Your task to perform on an android device: uninstall "The Home Depot" Image 0: 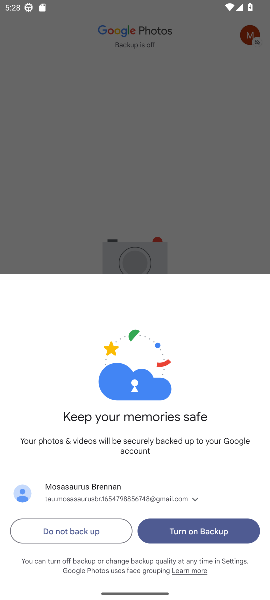
Step 0: press home button
Your task to perform on an android device: uninstall "The Home Depot" Image 1: 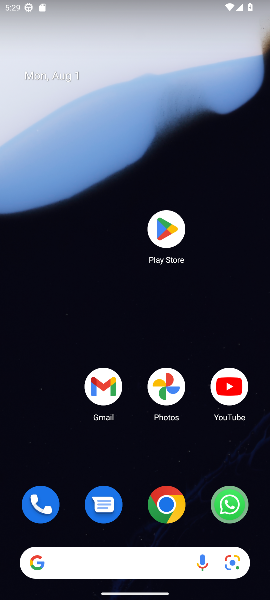
Step 1: click (166, 230)
Your task to perform on an android device: uninstall "The Home Depot" Image 2: 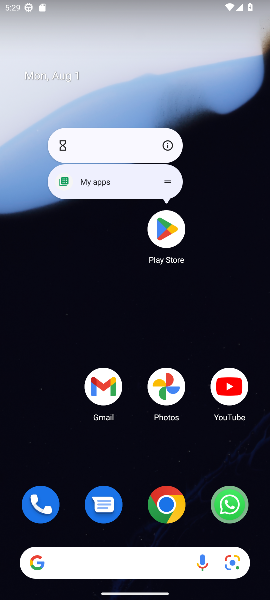
Step 2: click (166, 230)
Your task to perform on an android device: uninstall "The Home Depot" Image 3: 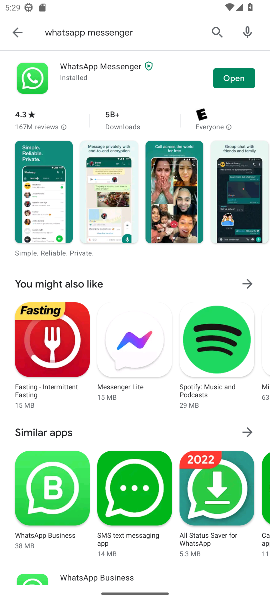
Step 3: click (212, 24)
Your task to perform on an android device: uninstall "The Home Depot" Image 4: 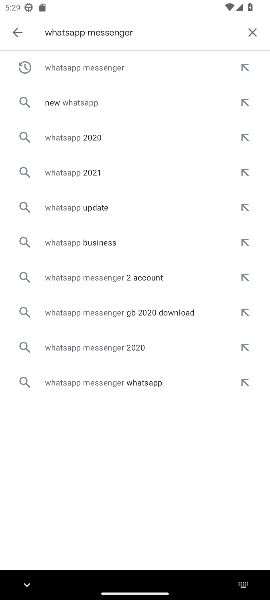
Step 4: click (249, 30)
Your task to perform on an android device: uninstall "The Home Depot" Image 5: 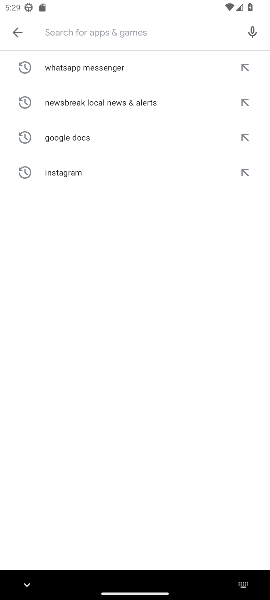
Step 5: type "The Home Depot"
Your task to perform on an android device: uninstall "The Home Depot" Image 6: 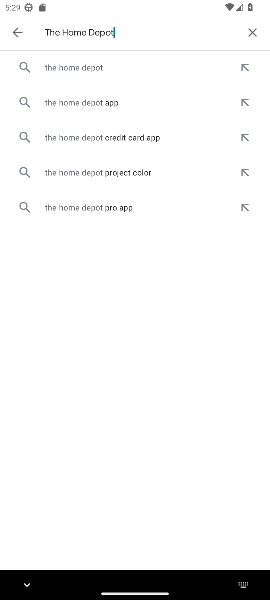
Step 6: click (100, 66)
Your task to perform on an android device: uninstall "The Home Depot" Image 7: 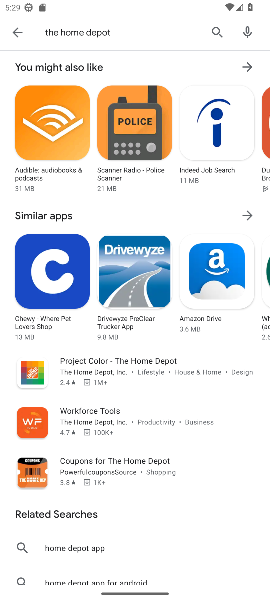
Step 7: drag from (230, 179) to (50, 162)
Your task to perform on an android device: uninstall "The Home Depot" Image 8: 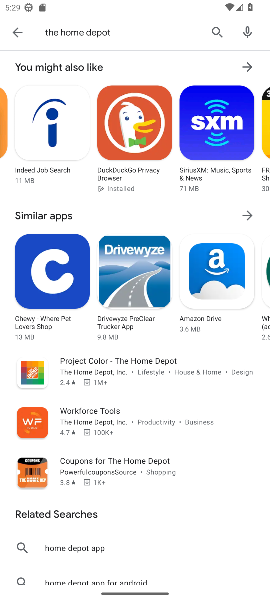
Step 8: drag from (159, 472) to (186, 308)
Your task to perform on an android device: uninstall "The Home Depot" Image 9: 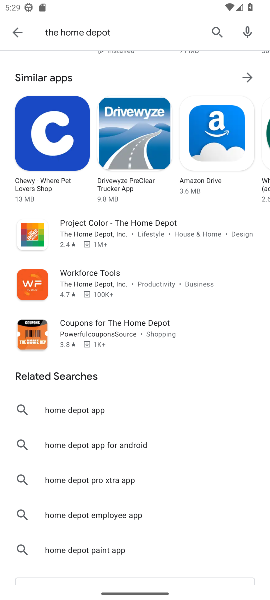
Step 9: click (114, 448)
Your task to perform on an android device: uninstall "The Home Depot" Image 10: 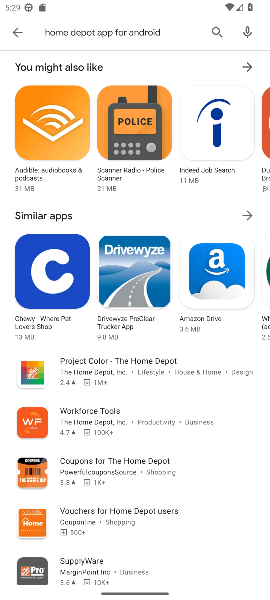
Step 10: task complete